Your task to perform on an android device: check google app version Image 0: 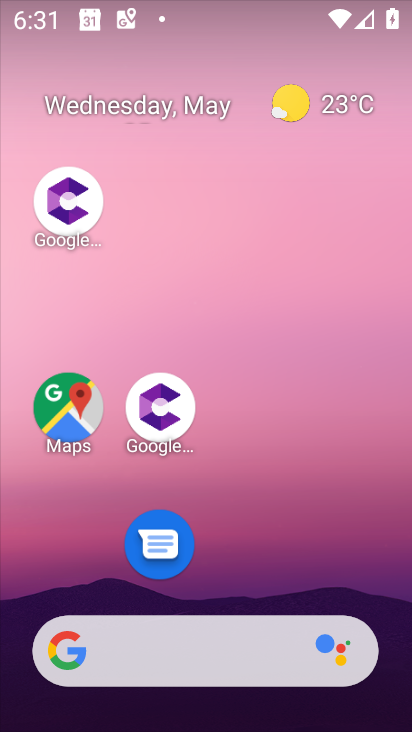
Step 0: drag from (278, 519) to (189, 49)
Your task to perform on an android device: check google app version Image 1: 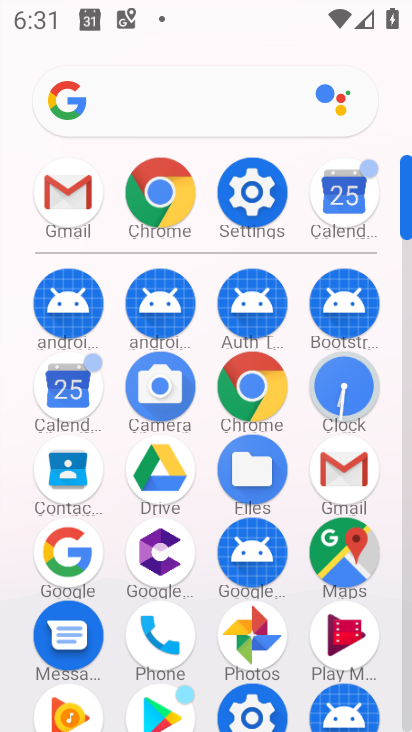
Step 1: click (59, 544)
Your task to perform on an android device: check google app version Image 2: 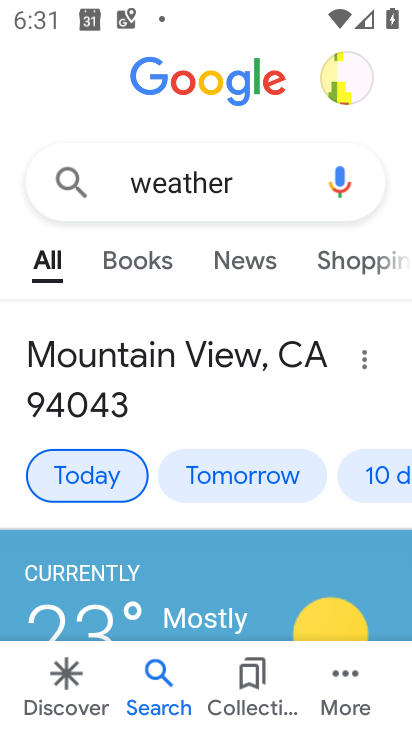
Step 2: click (358, 674)
Your task to perform on an android device: check google app version Image 3: 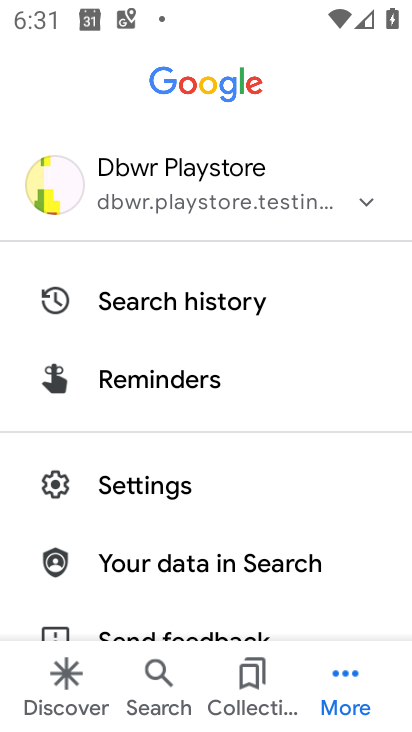
Step 3: click (170, 472)
Your task to perform on an android device: check google app version Image 4: 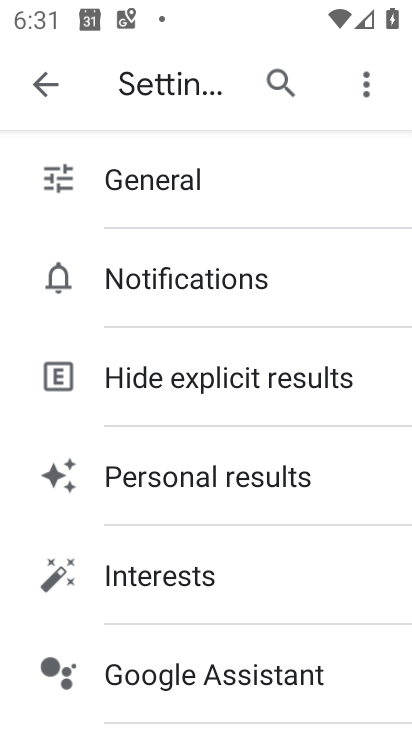
Step 4: drag from (234, 565) to (173, 126)
Your task to perform on an android device: check google app version Image 5: 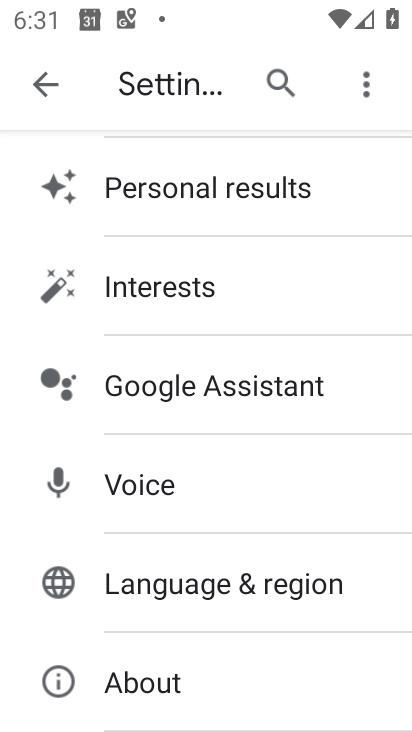
Step 5: click (118, 682)
Your task to perform on an android device: check google app version Image 6: 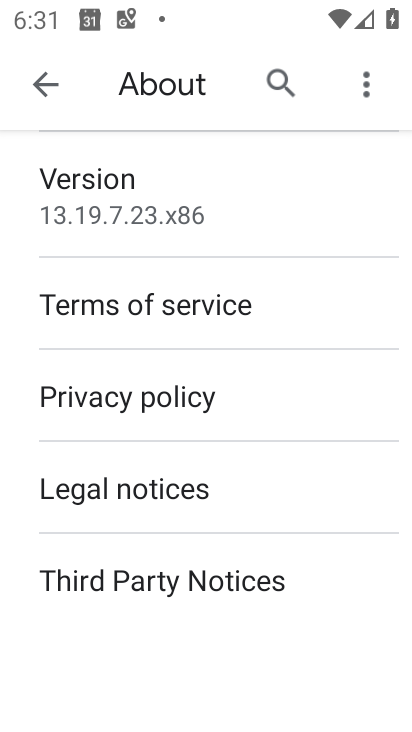
Step 6: task complete